Your task to perform on an android device: turn on translation in the chrome app Image 0: 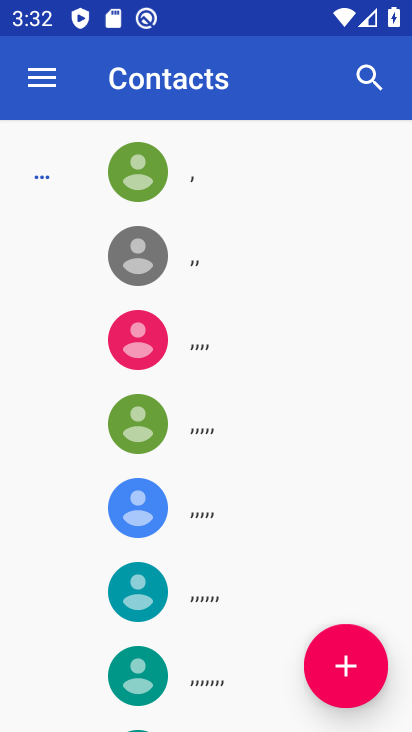
Step 0: press home button
Your task to perform on an android device: turn on translation in the chrome app Image 1: 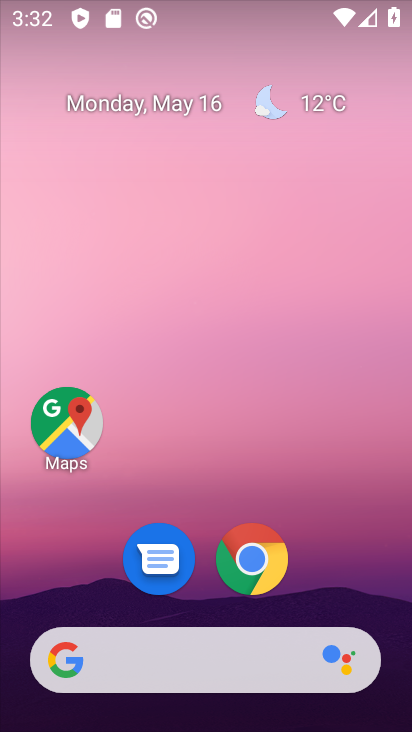
Step 1: drag from (348, 591) to (332, 194)
Your task to perform on an android device: turn on translation in the chrome app Image 2: 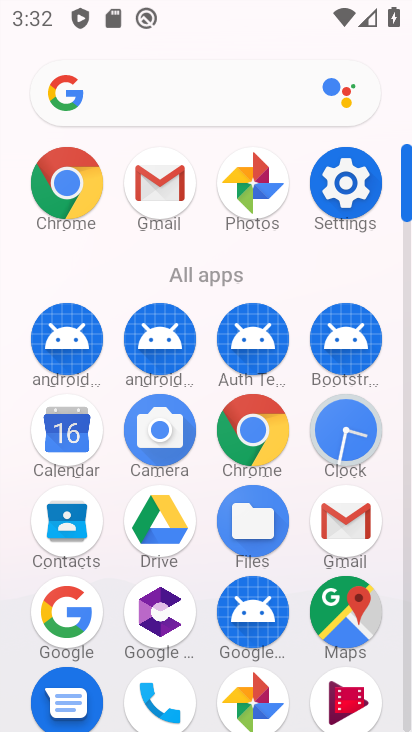
Step 2: click (47, 179)
Your task to perform on an android device: turn on translation in the chrome app Image 3: 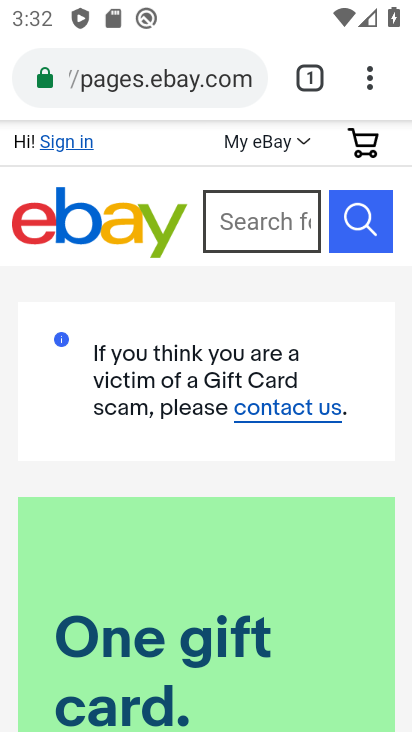
Step 3: click (378, 88)
Your task to perform on an android device: turn on translation in the chrome app Image 4: 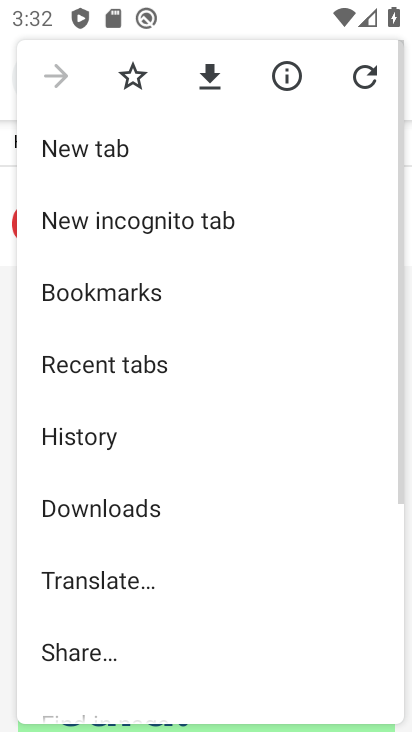
Step 4: drag from (220, 515) to (216, 342)
Your task to perform on an android device: turn on translation in the chrome app Image 5: 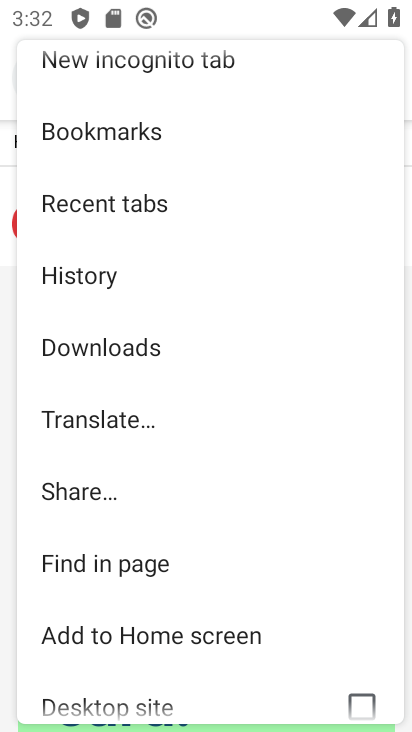
Step 5: click (173, 447)
Your task to perform on an android device: turn on translation in the chrome app Image 6: 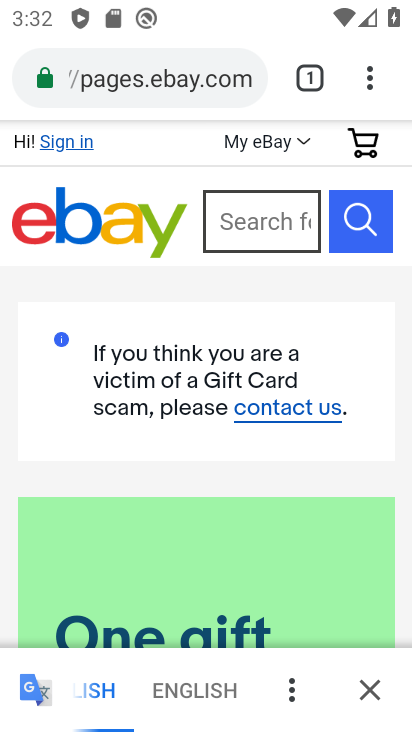
Step 6: click (355, 97)
Your task to perform on an android device: turn on translation in the chrome app Image 7: 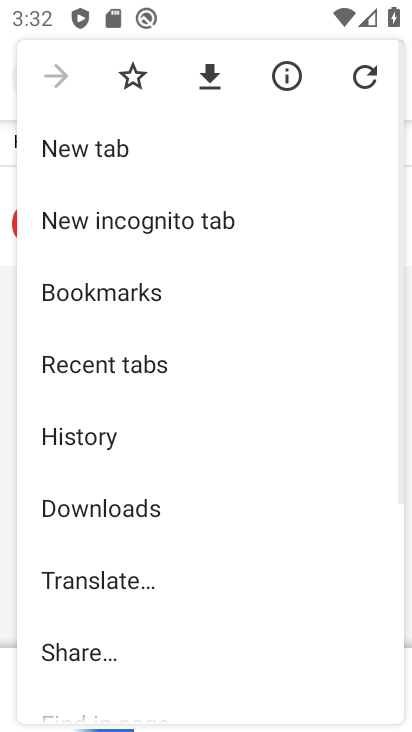
Step 7: drag from (124, 600) to (138, 194)
Your task to perform on an android device: turn on translation in the chrome app Image 8: 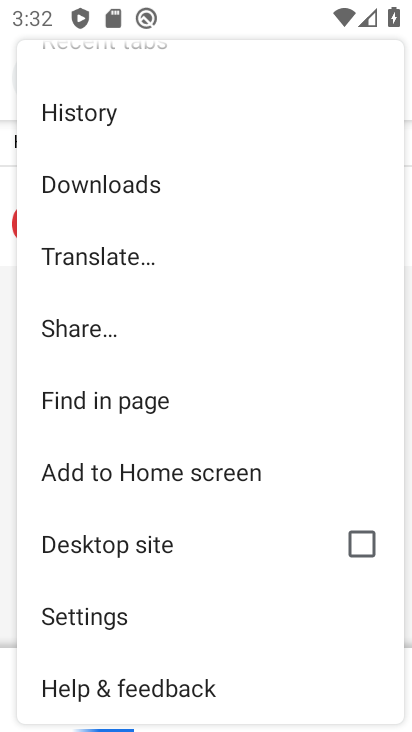
Step 8: click (139, 631)
Your task to perform on an android device: turn on translation in the chrome app Image 9: 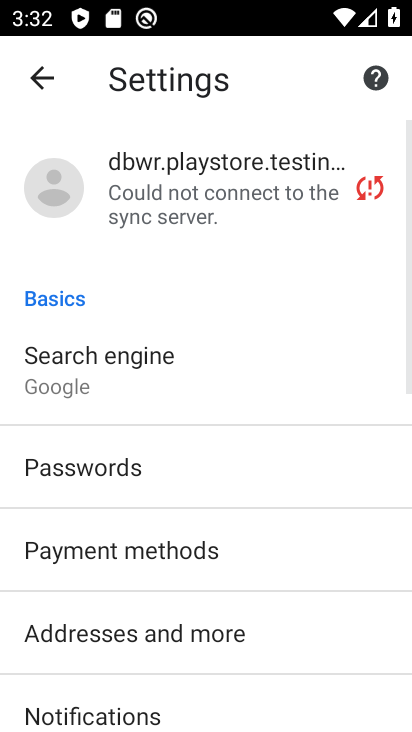
Step 9: drag from (139, 631) to (132, 319)
Your task to perform on an android device: turn on translation in the chrome app Image 10: 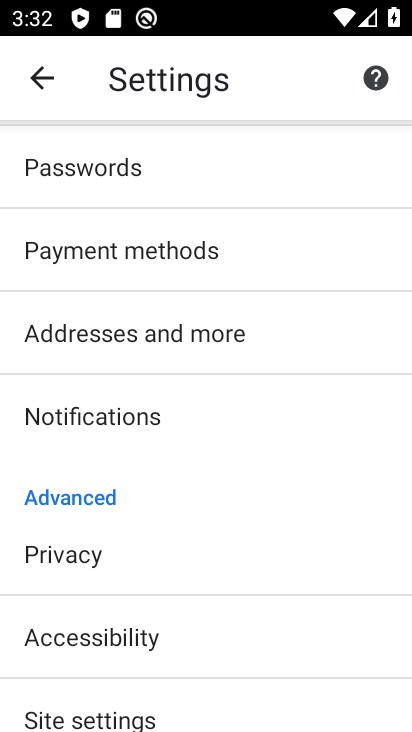
Step 10: drag from (164, 611) to (161, 345)
Your task to perform on an android device: turn on translation in the chrome app Image 11: 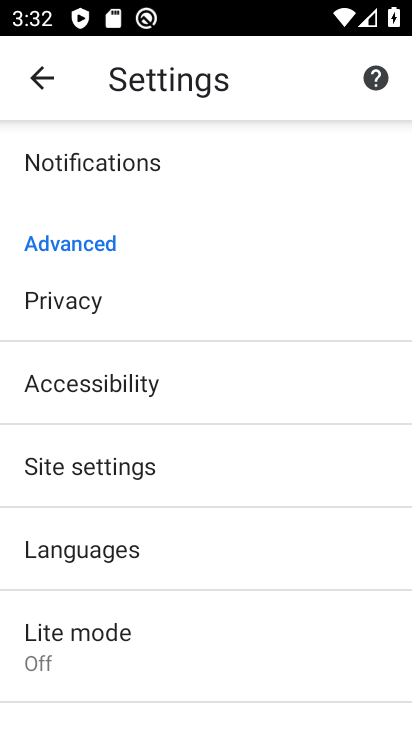
Step 11: click (163, 495)
Your task to perform on an android device: turn on translation in the chrome app Image 12: 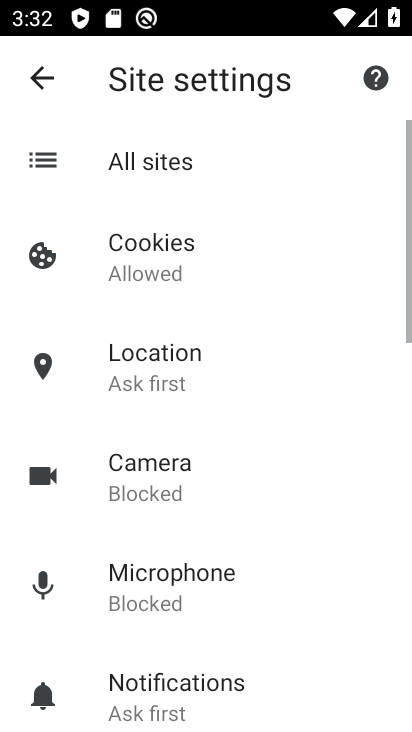
Step 12: drag from (209, 666) to (172, 352)
Your task to perform on an android device: turn on translation in the chrome app Image 13: 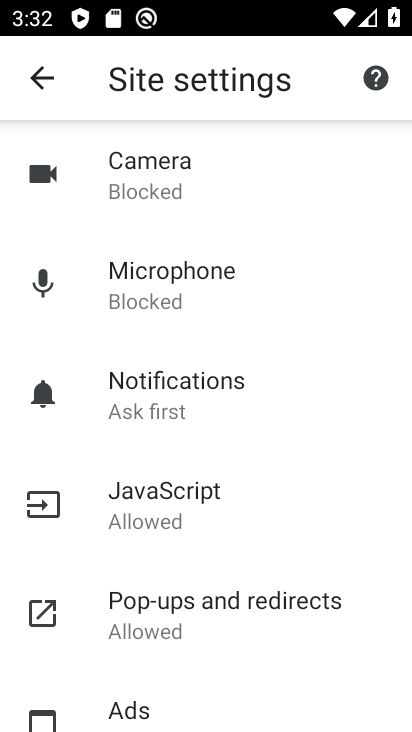
Step 13: drag from (187, 636) to (166, 393)
Your task to perform on an android device: turn on translation in the chrome app Image 14: 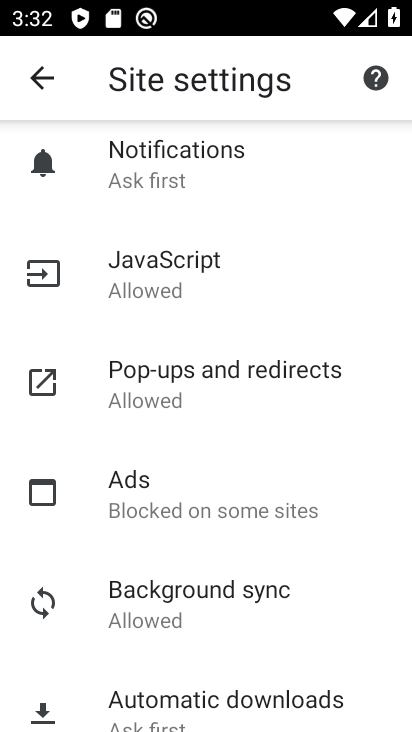
Step 14: drag from (211, 545) to (152, 694)
Your task to perform on an android device: turn on translation in the chrome app Image 15: 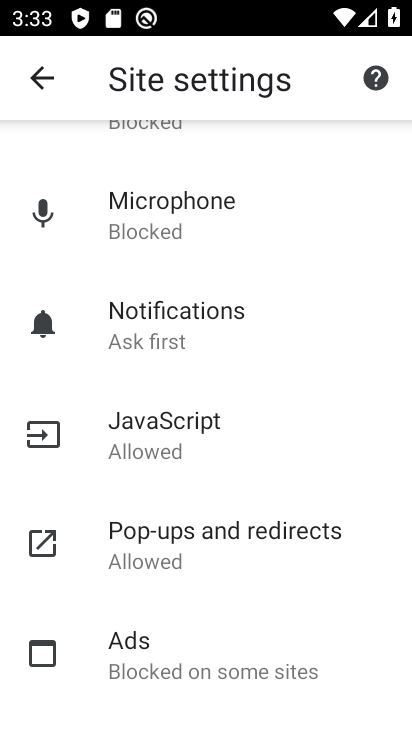
Step 15: click (37, 94)
Your task to perform on an android device: turn on translation in the chrome app Image 16: 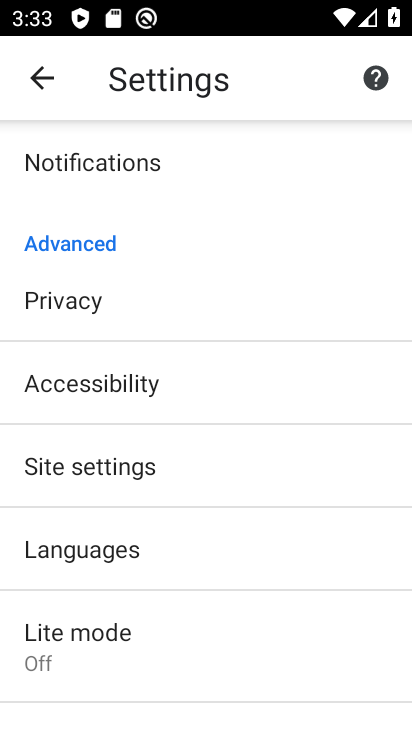
Step 16: click (120, 524)
Your task to perform on an android device: turn on translation in the chrome app Image 17: 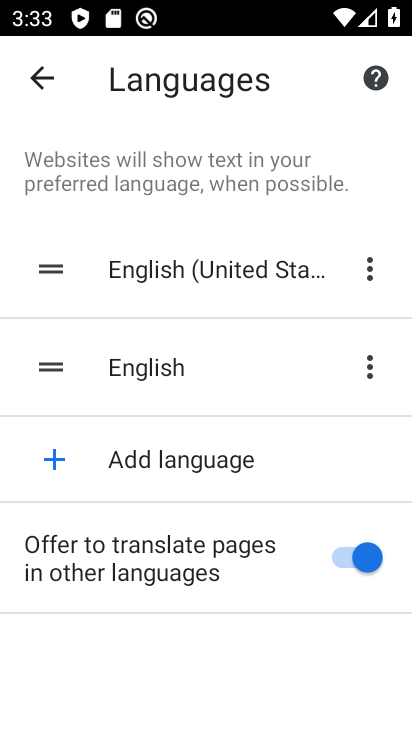
Step 17: click (333, 581)
Your task to perform on an android device: turn on translation in the chrome app Image 18: 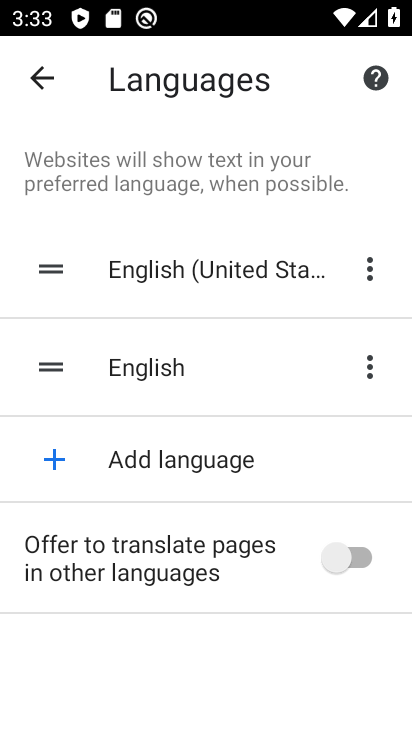
Step 18: task complete